Your task to perform on an android device: Search for "beats solo 3" on walmart.com, select the first entry, and add it to the cart. Image 0: 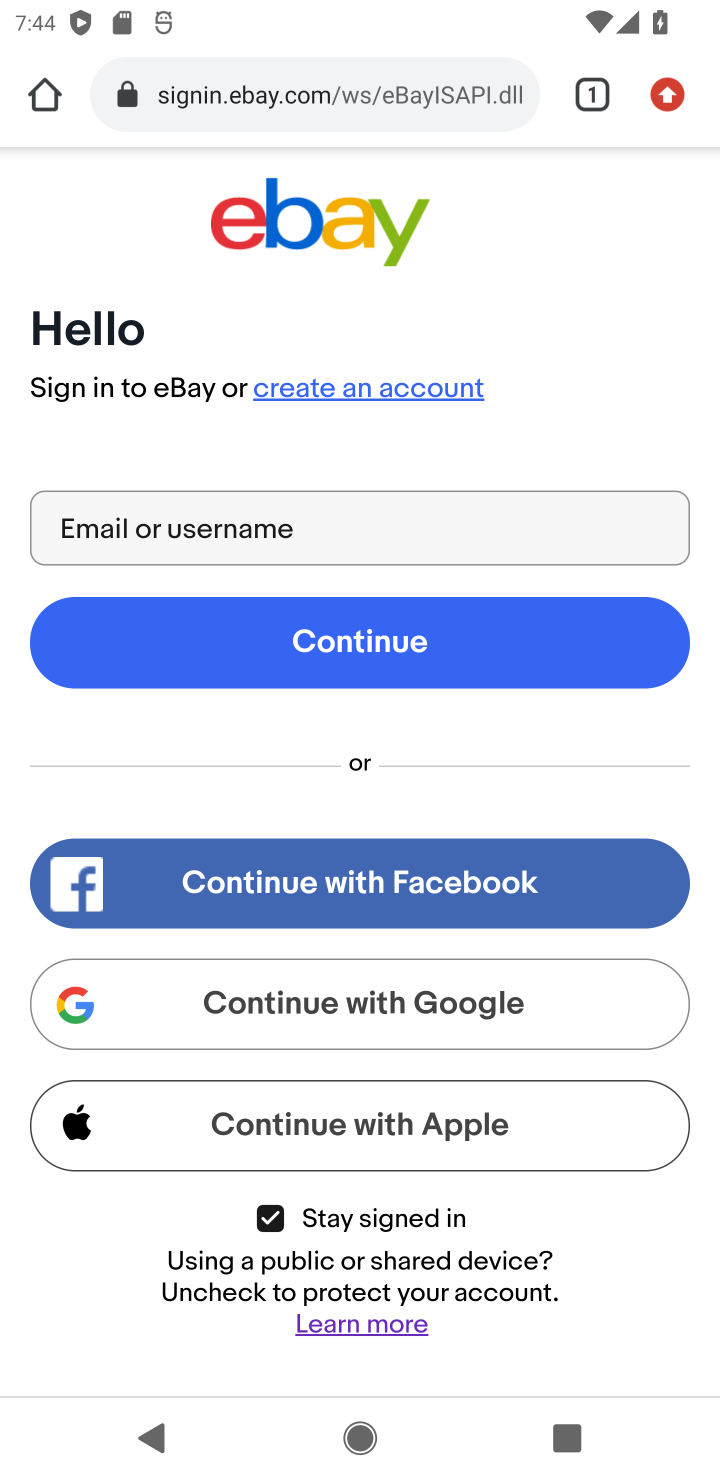
Step 0: press home button
Your task to perform on an android device: Search for "beats solo 3" on walmart.com, select the first entry, and add it to the cart. Image 1: 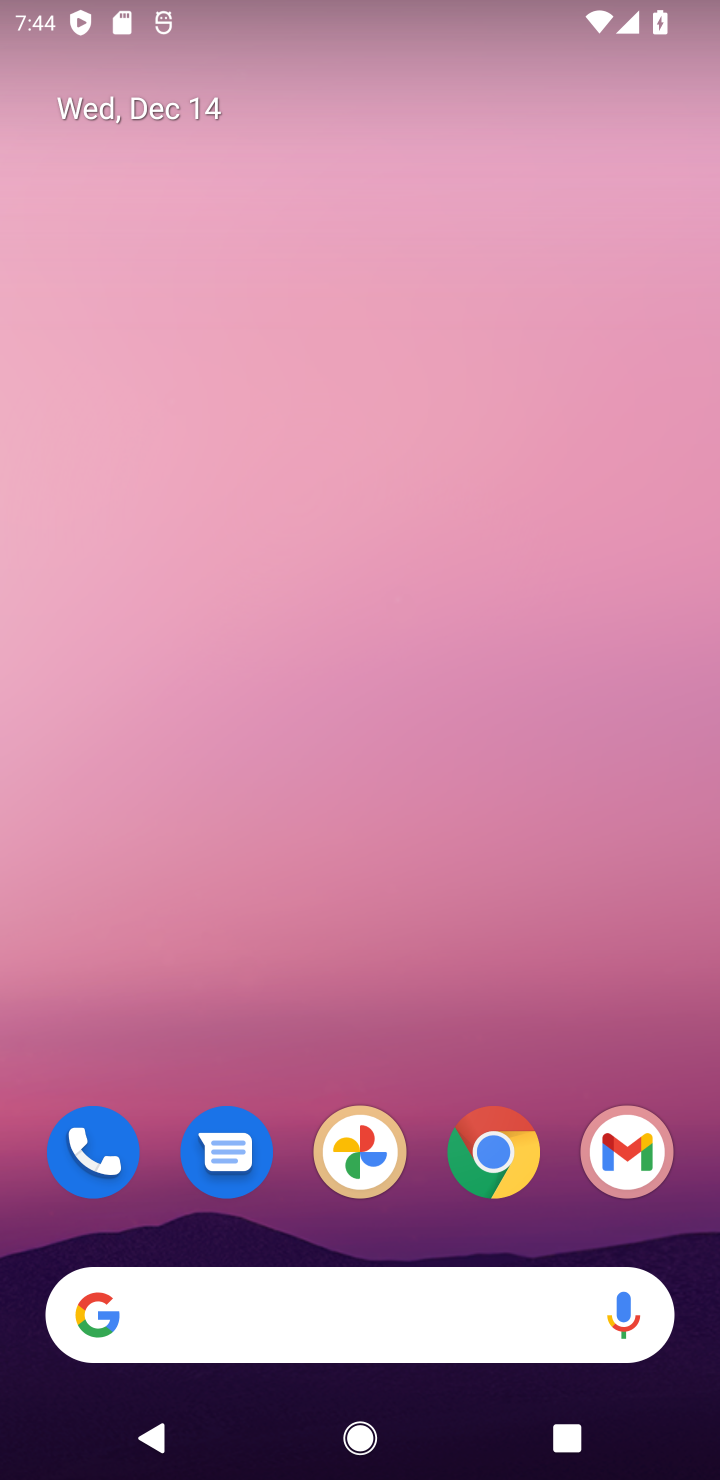
Step 1: click (481, 1141)
Your task to perform on an android device: Search for "beats solo 3" on walmart.com, select the first entry, and add it to the cart. Image 2: 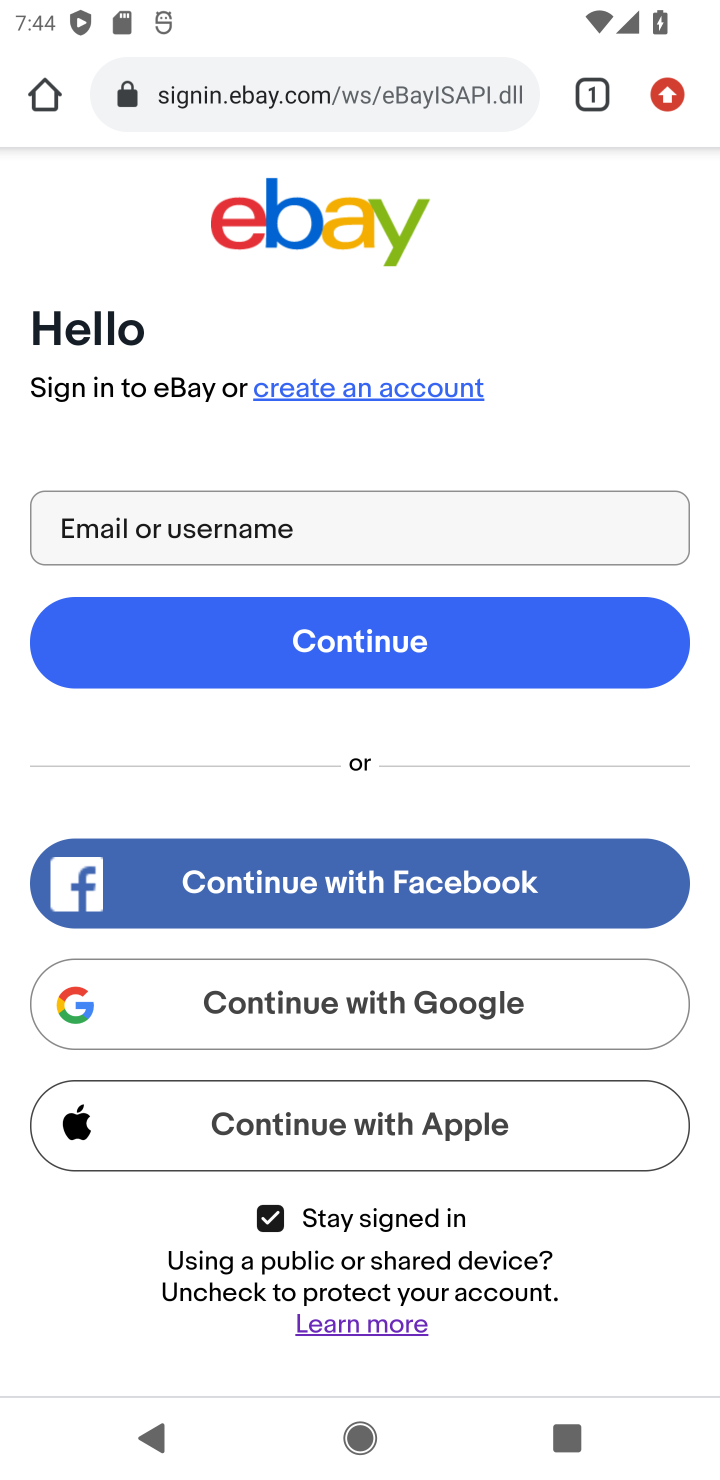
Step 2: click (232, 98)
Your task to perform on an android device: Search for "beats solo 3" on walmart.com, select the first entry, and add it to the cart. Image 3: 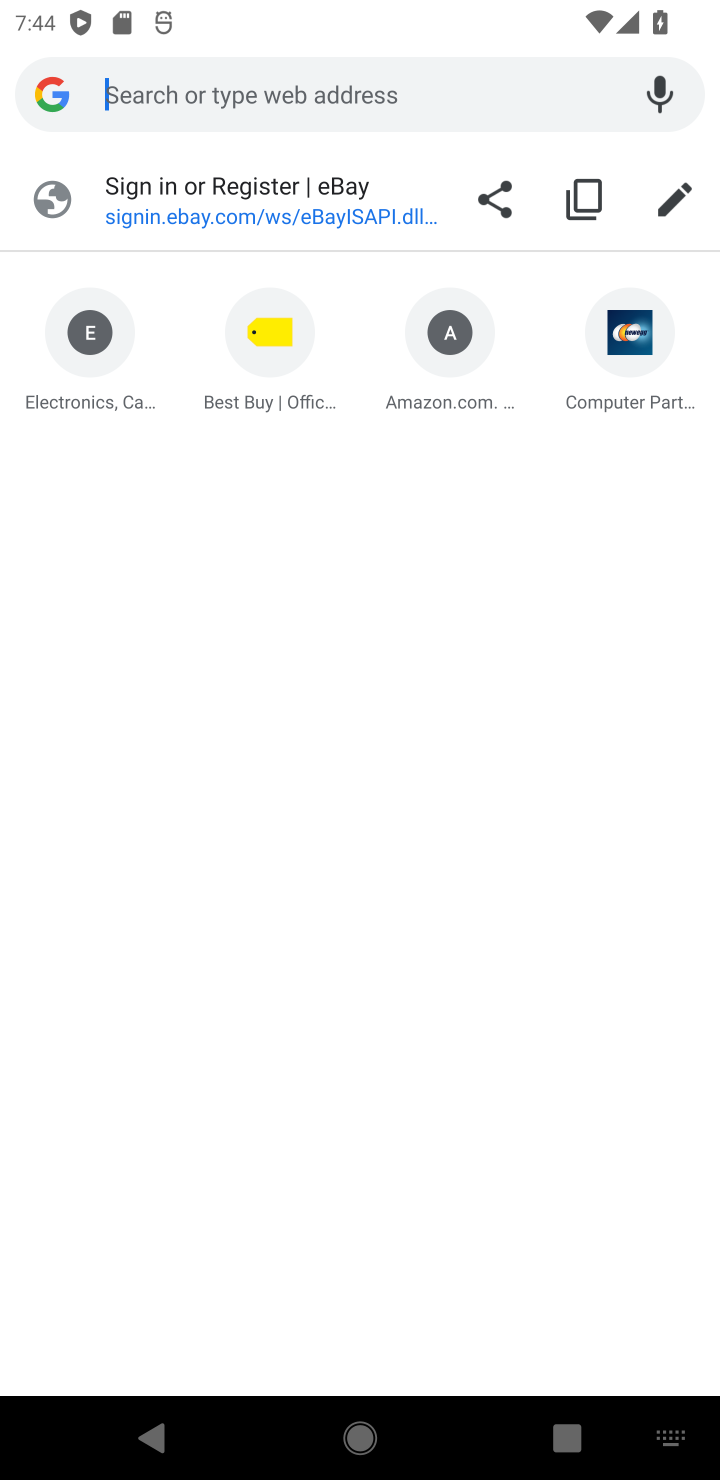
Step 3: type "walmart.com"
Your task to perform on an android device: Search for "beats solo 3" on walmart.com, select the first entry, and add it to the cart. Image 4: 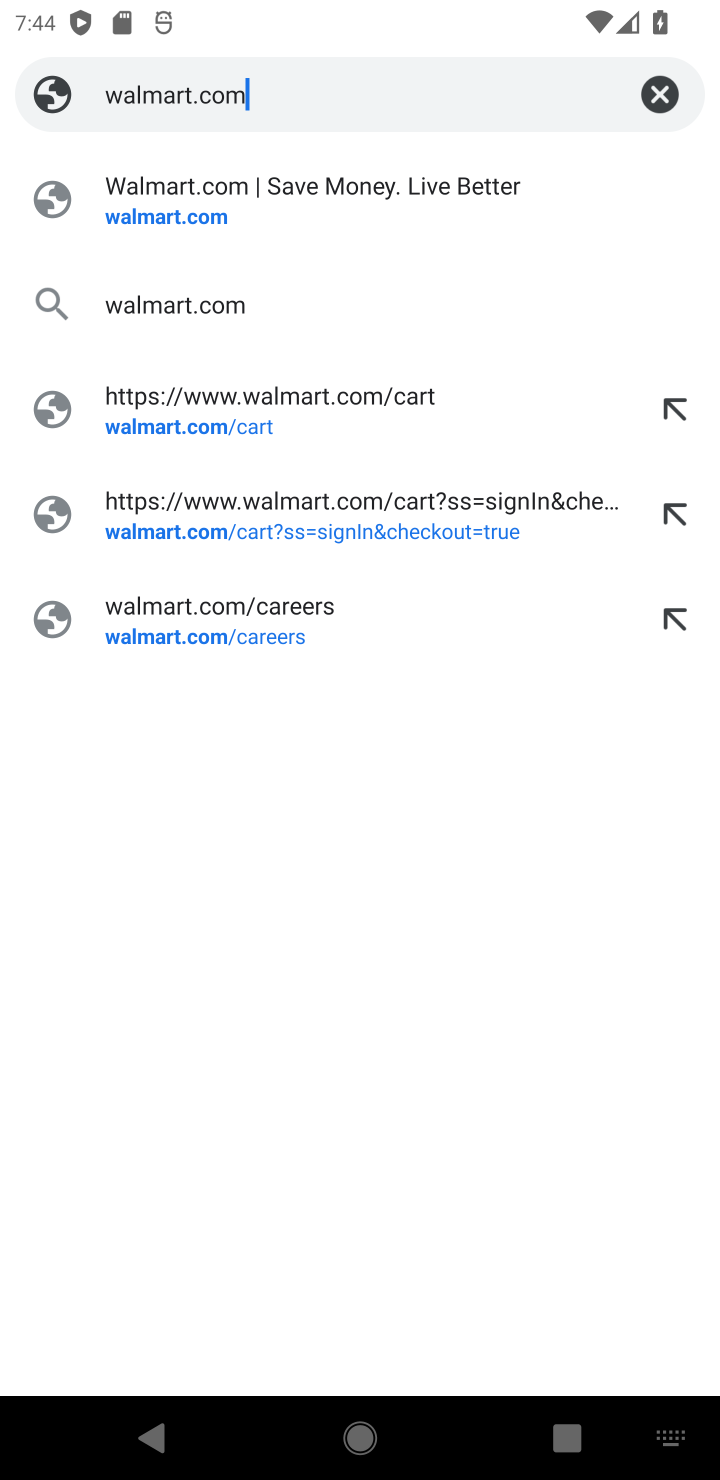
Step 4: click (163, 219)
Your task to perform on an android device: Search for "beats solo 3" on walmart.com, select the first entry, and add it to the cart. Image 5: 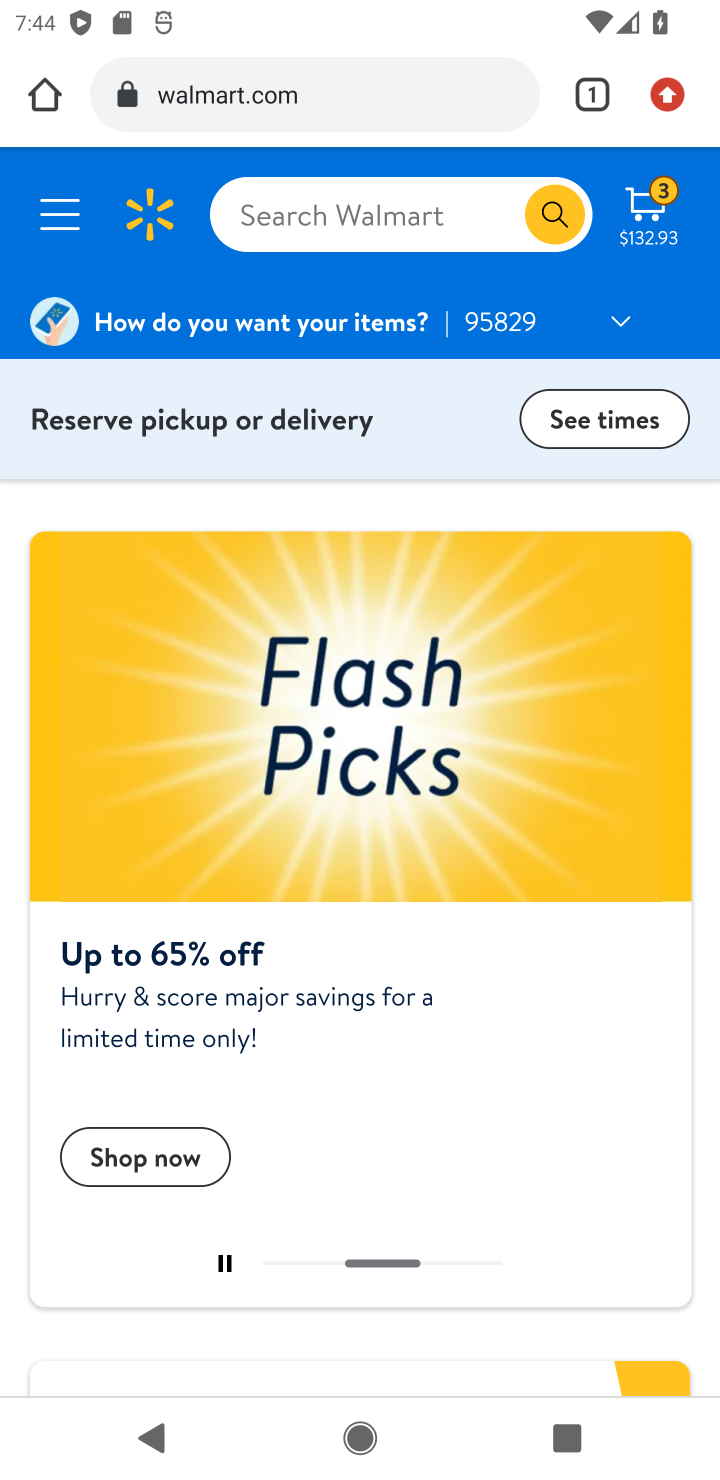
Step 5: click (350, 230)
Your task to perform on an android device: Search for "beats solo 3" on walmart.com, select the first entry, and add it to the cart. Image 6: 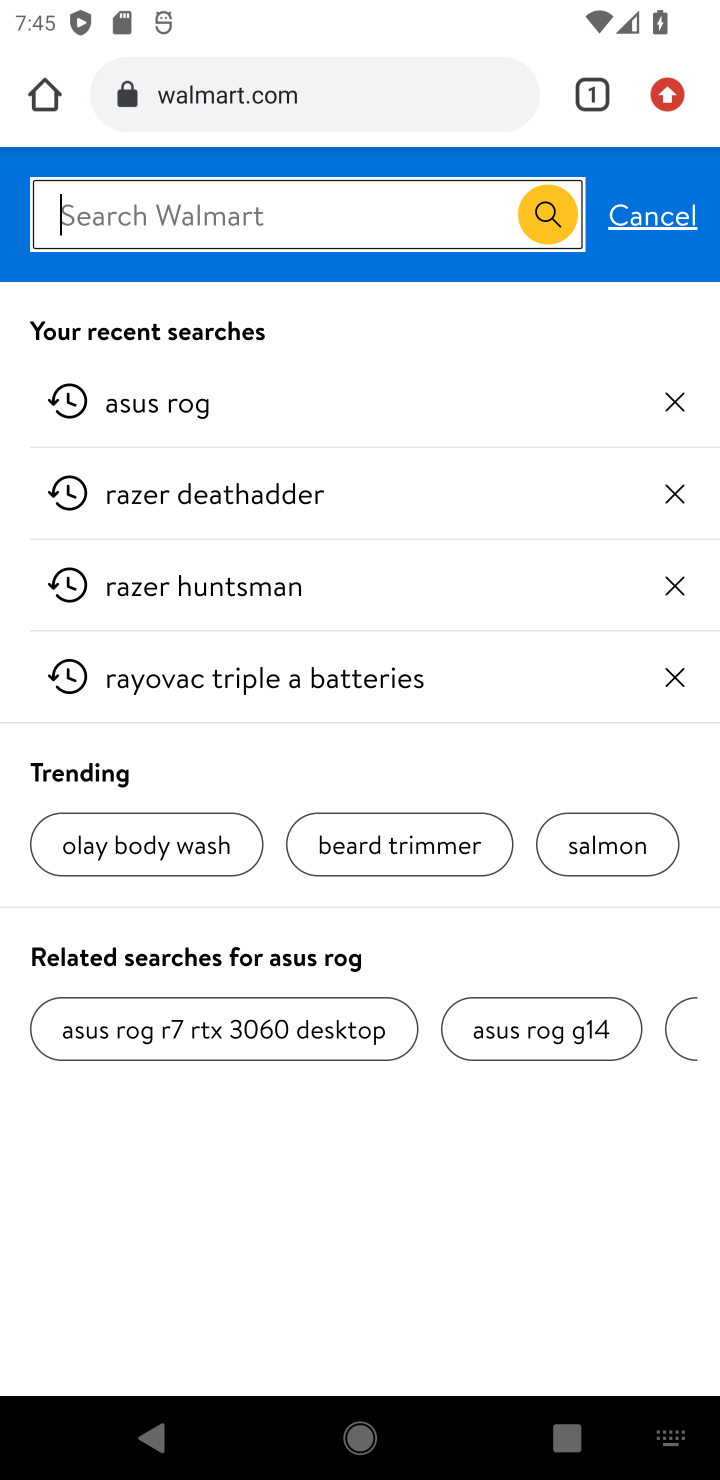
Step 6: type "beats solo 3"
Your task to perform on an android device: Search for "beats solo 3" on walmart.com, select the first entry, and add it to the cart. Image 7: 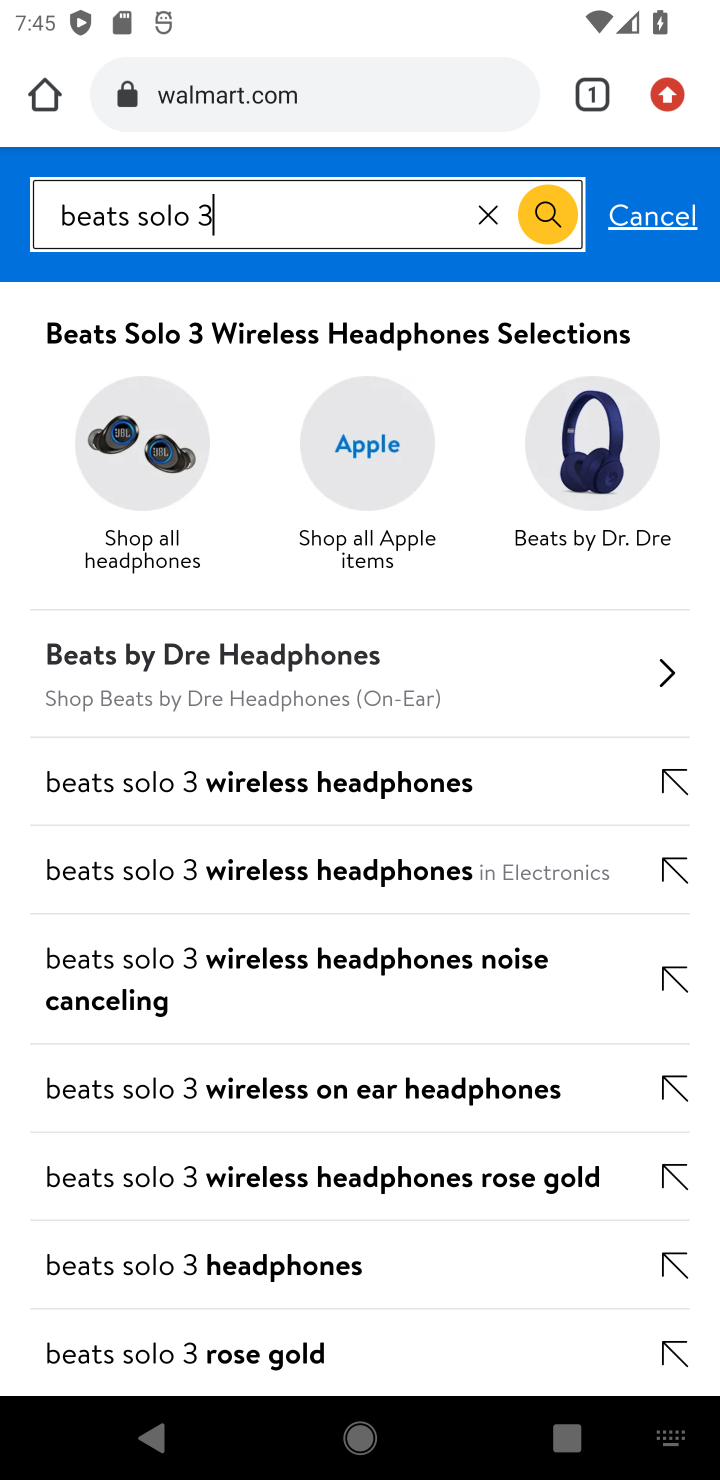
Step 7: click (194, 797)
Your task to perform on an android device: Search for "beats solo 3" on walmart.com, select the first entry, and add it to the cart. Image 8: 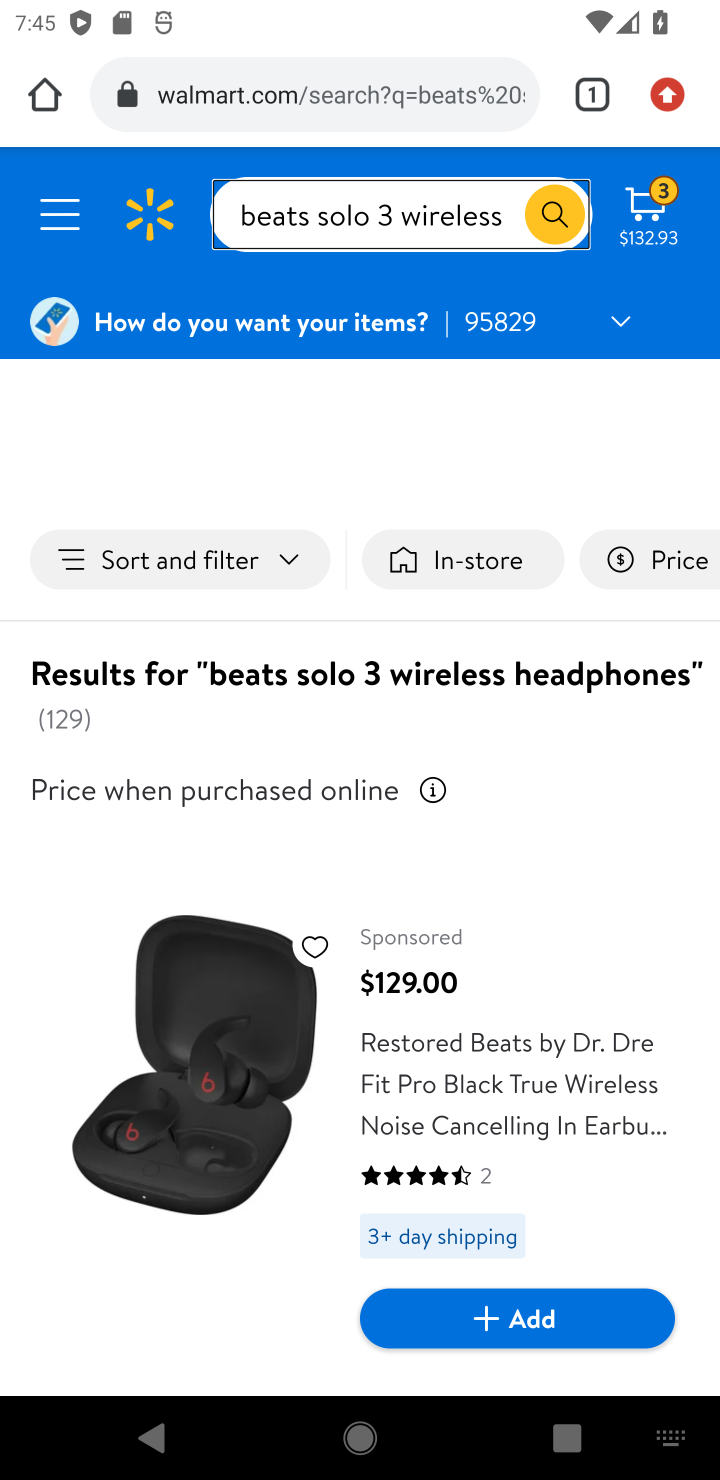
Step 8: task complete